Your task to perform on an android device: Go to Google Image 0: 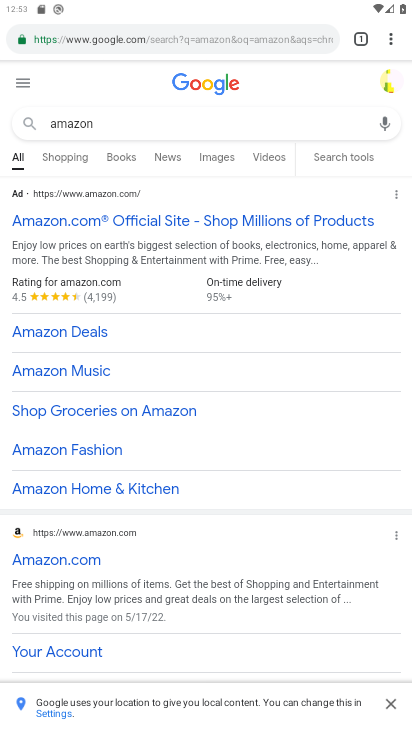
Step 0: press home button
Your task to perform on an android device: Go to Google Image 1: 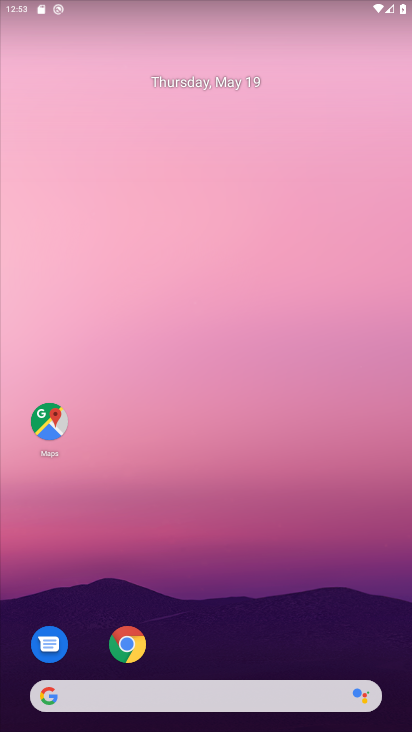
Step 1: drag from (187, 641) to (265, 349)
Your task to perform on an android device: Go to Google Image 2: 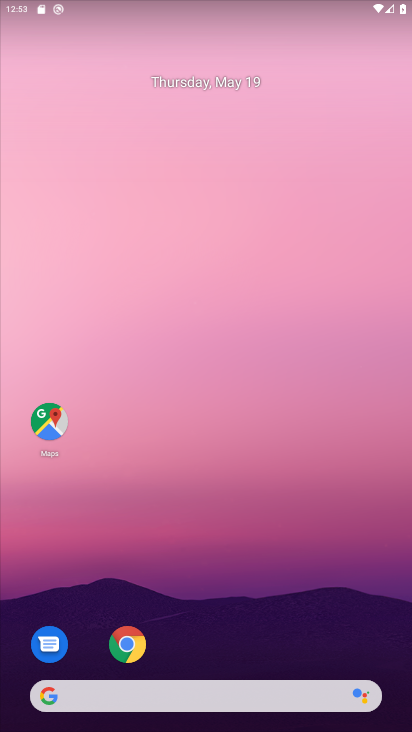
Step 2: drag from (181, 652) to (289, 335)
Your task to perform on an android device: Go to Google Image 3: 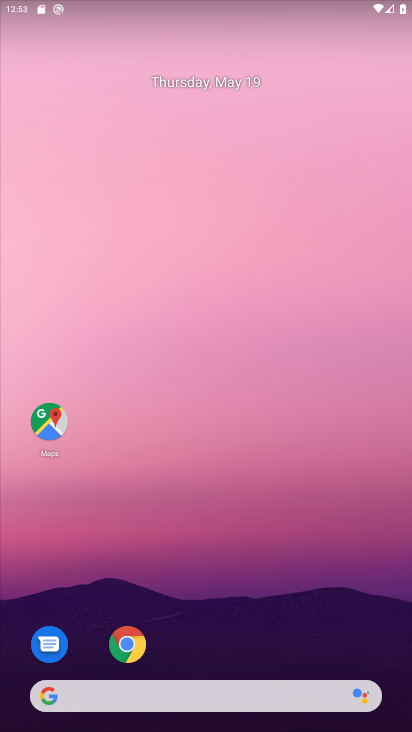
Step 3: drag from (201, 638) to (366, 118)
Your task to perform on an android device: Go to Google Image 4: 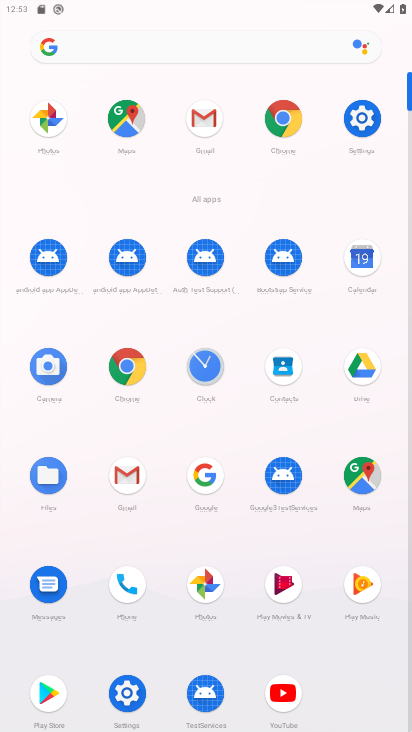
Step 4: click (201, 470)
Your task to perform on an android device: Go to Google Image 5: 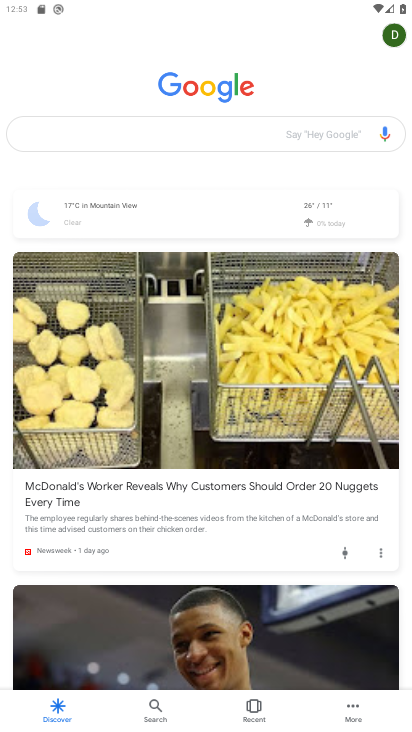
Step 5: task complete